Your task to perform on an android device: change text size in settings app Image 0: 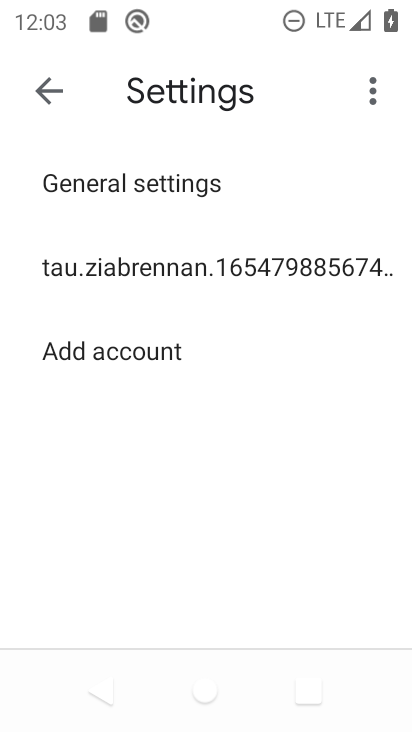
Step 0: press home button
Your task to perform on an android device: change text size in settings app Image 1: 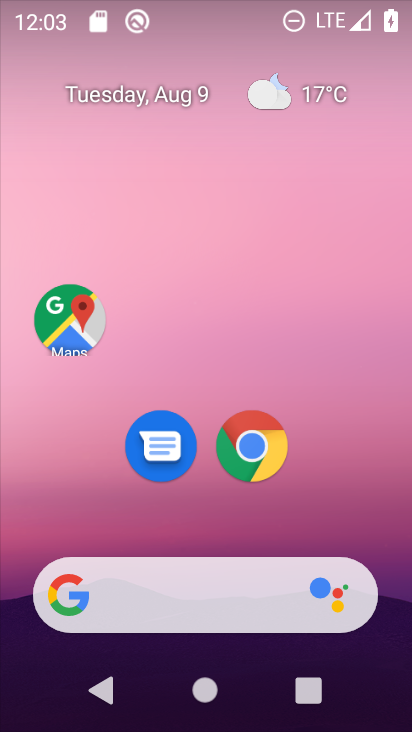
Step 1: drag from (397, 595) to (386, 138)
Your task to perform on an android device: change text size in settings app Image 2: 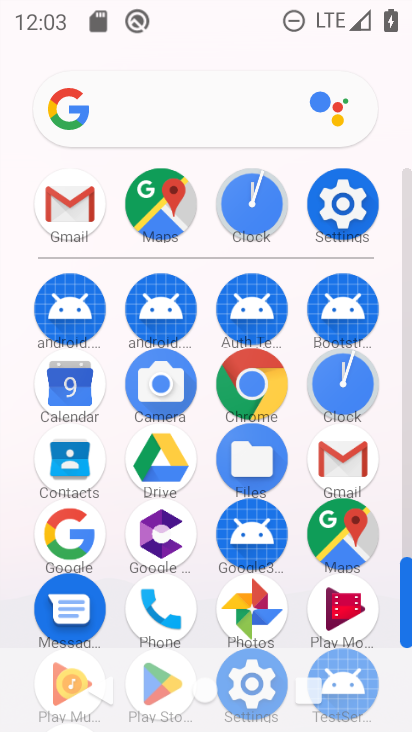
Step 2: click (406, 536)
Your task to perform on an android device: change text size in settings app Image 3: 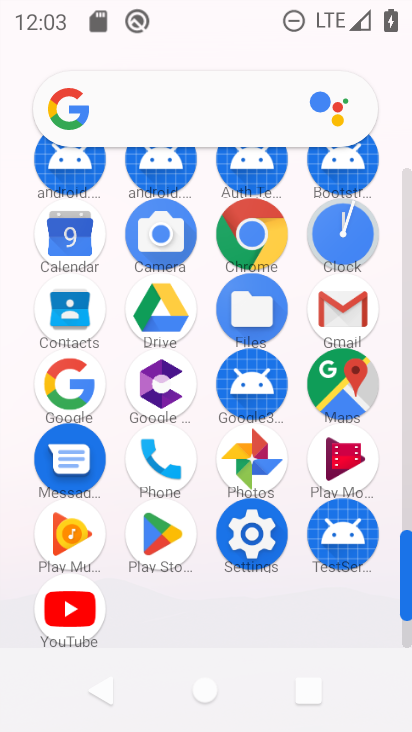
Step 3: click (249, 536)
Your task to perform on an android device: change text size in settings app Image 4: 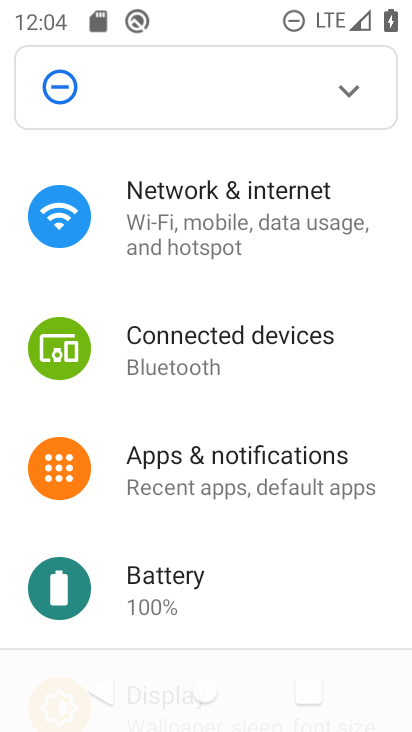
Step 4: drag from (375, 604) to (307, 335)
Your task to perform on an android device: change text size in settings app Image 5: 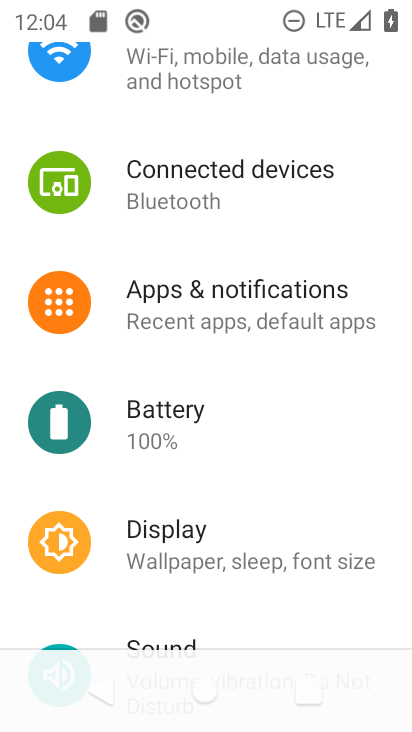
Step 5: click (194, 546)
Your task to perform on an android device: change text size in settings app Image 6: 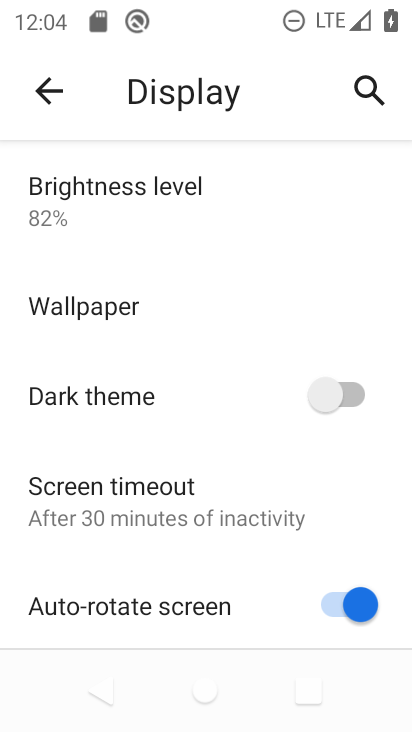
Step 6: drag from (310, 572) to (238, 204)
Your task to perform on an android device: change text size in settings app Image 7: 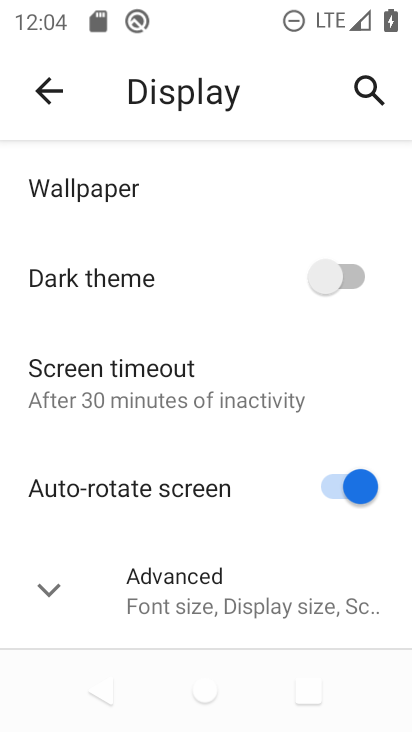
Step 7: click (47, 586)
Your task to perform on an android device: change text size in settings app Image 8: 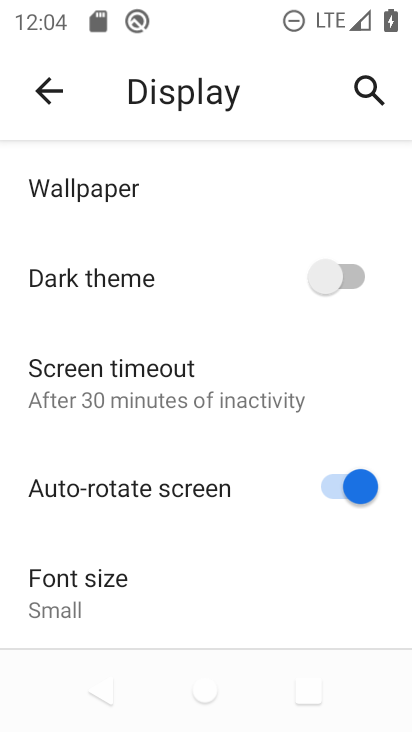
Step 8: drag from (219, 602) to (166, 304)
Your task to perform on an android device: change text size in settings app Image 9: 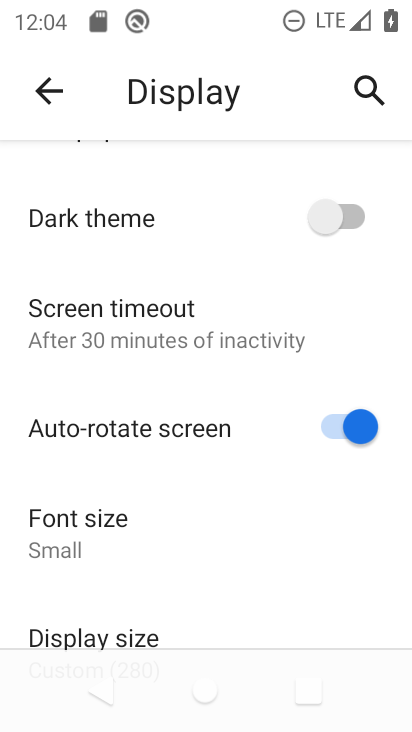
Step 9: click (74, 541)
Your task to perform on an android device: change text size in settings app Image 10: 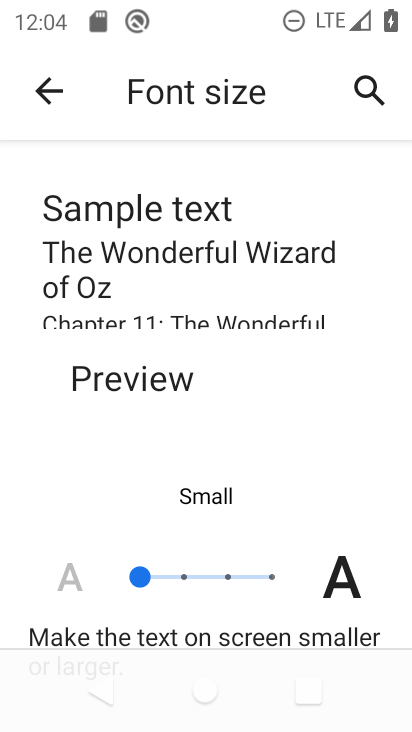
Step 10: click (224, 575)
Your task to perform on an android device: change text size in settings app Image 11: 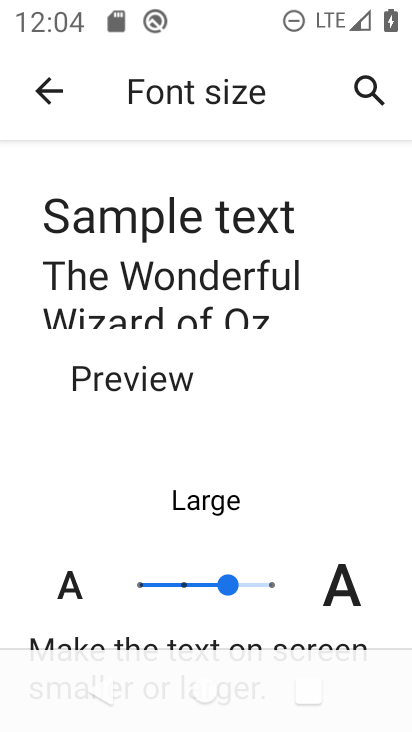
Step 11: task complete